Your task to perform on an android device: Show me popular games on the Play Store Image 0: 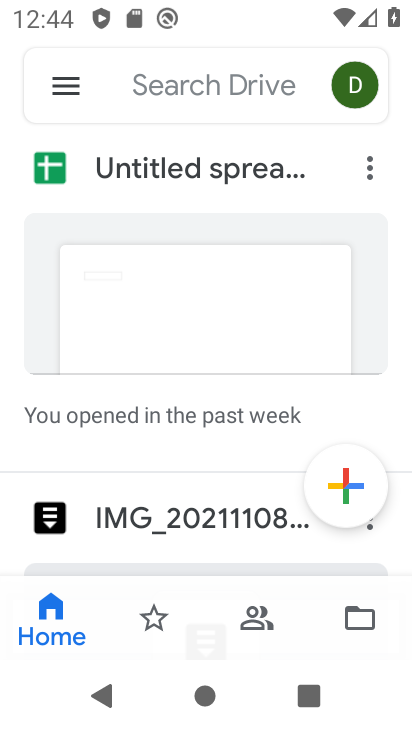
Step 0: press home button
Your task to perform on an android device: Show me popular games on the Play Store Image 1: 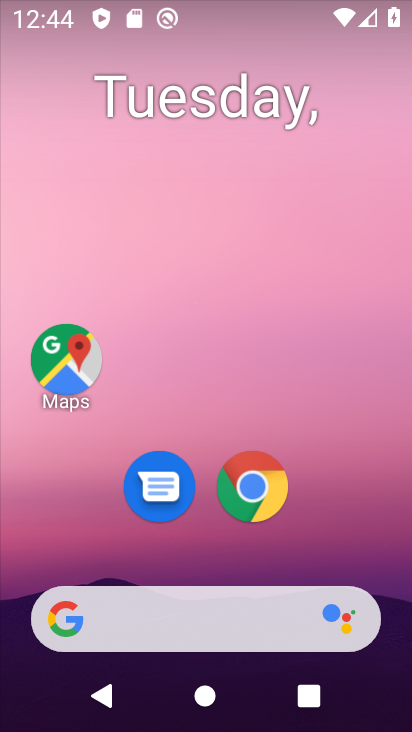
Step 1: drag from (370, 542) to (257, 75)
Your task to perform on an android device: Show me popular games on the Play Store Image 2: 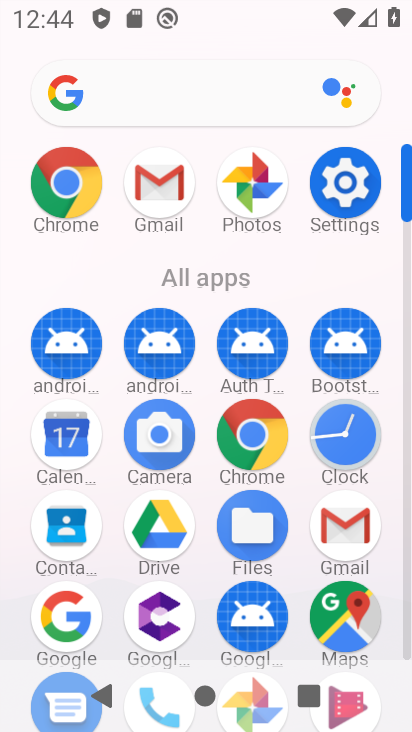
Step 2: click (405, 648)
Your task to perform on an android device: Show me popular games on the Play Store Image 3: 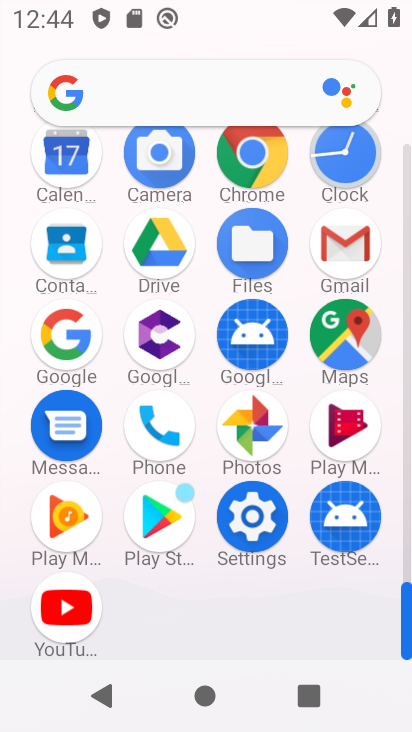
Step 3: click (165, 525)
Your task to perform on an android device: Show me popular games on the Play Store Image 4: 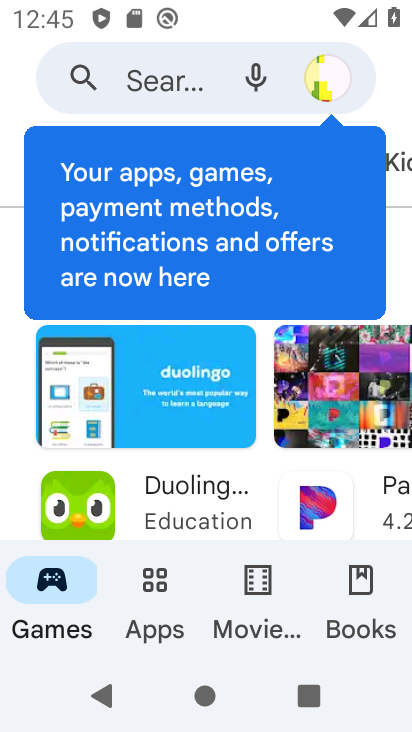
Step 4: drag from (201, 525) to (176, 231)
Your task to perform on an android device: Show me popular games on the Play Store Image 5: 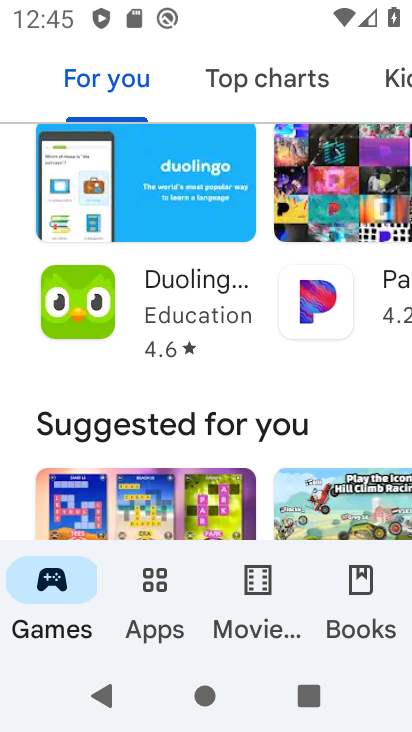
Step 5: drag from (176, 231) to (184, 458)
Your task to perform on an android device: Show me popular games on the Play Store Image 6: 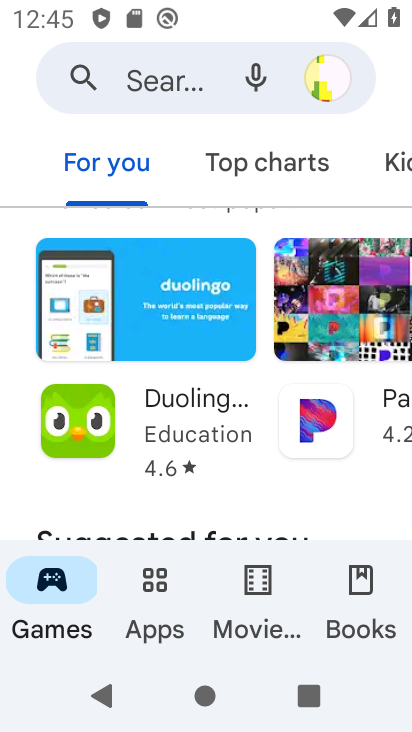
Step 6: drag from (192, 334) to (206, 448)
Your task to perform on an android device: Show me popular games on the Play Store Image 7: 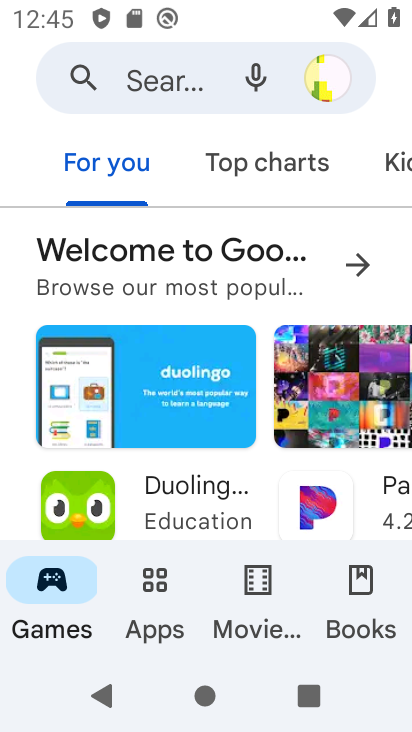
Step 7: click (185, 267)
Your task to perform on an android device: Show me popular games on the Play Store Image 8: 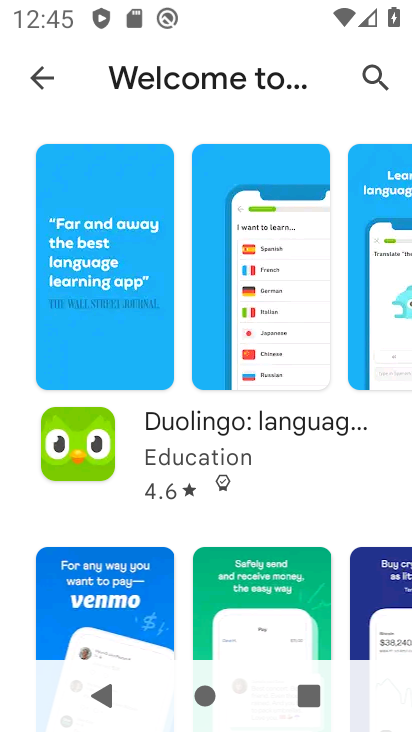
Step 8: task complete